Your task to perform on an android device: Open the calendar app, open the side menu, and click the "Day" option Image 0: 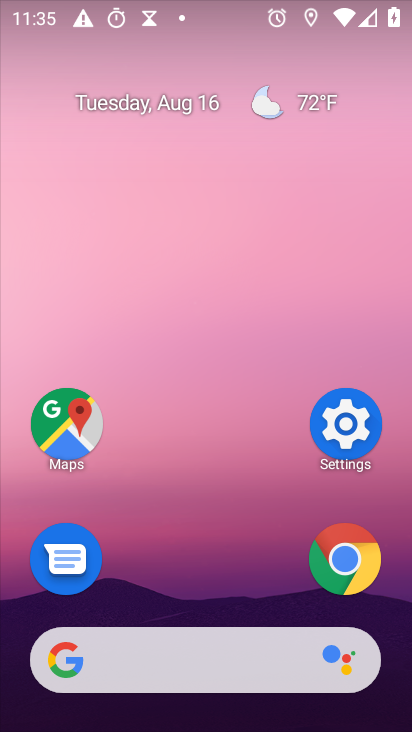
Step 0: drag from (222, 630) to (367, 36)
Your task to perform on an android device: Open the calendar app, open the side menu, and click the "Day" option Image 1: 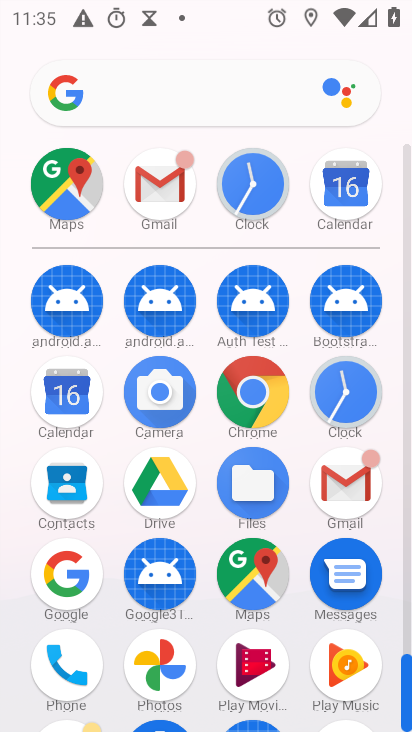
Step 1: click (73, 402)
Your task to perform on an android device: Open the calendar app, open the side menu, and click the "Day" option Image 2: 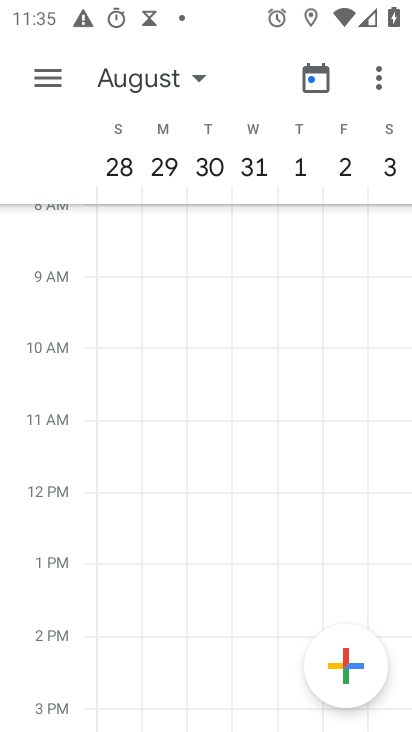
Step 2: click (42, 81)
Your task to perform on an android device: Open the calendar app, open the side menu, and click the "Day" option Image 3: 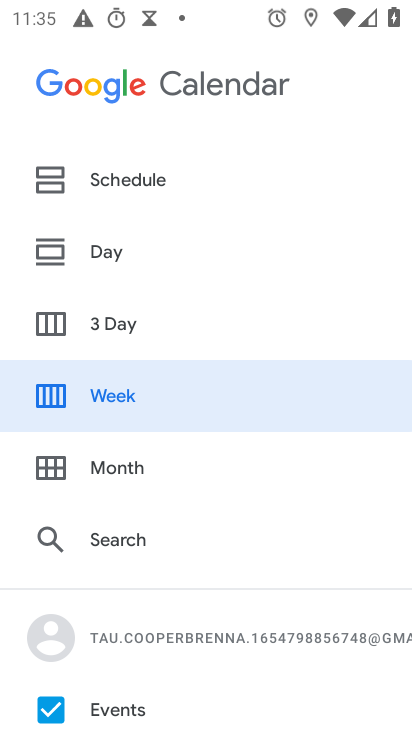
Step 3: click (104, 252)
Your task to perform on an android device: Open the calendar app, open the side menu, and click the "Day" option Image 4: 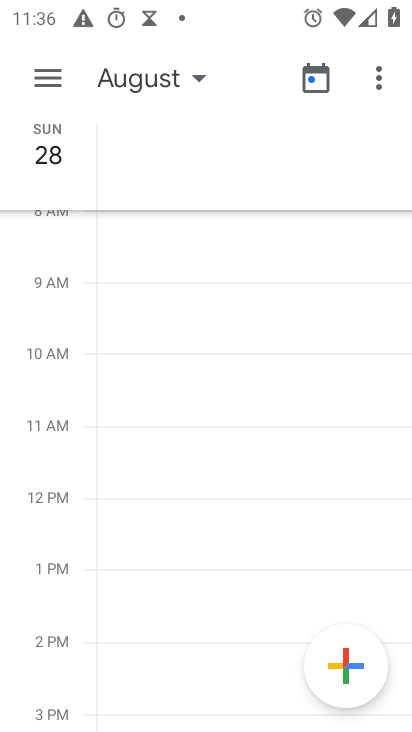
Step 4: task complete